Your task to perform on an android device: Go to Reddit.com Image 0: 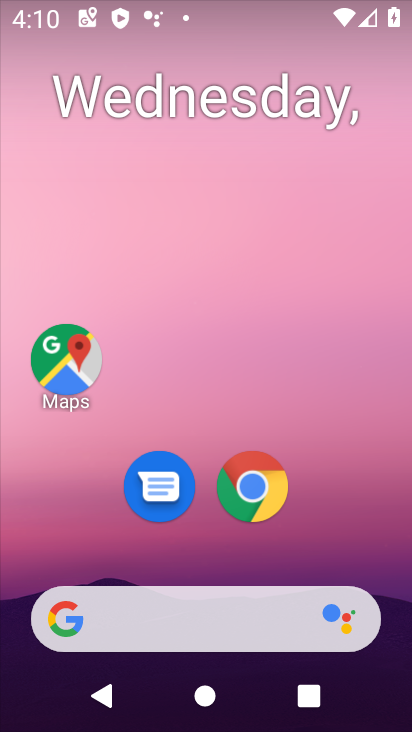
Step 0: drag from (199, 593) to (198, 156)
Your task to perform on an android device: Go to Reddit.com Image 1: 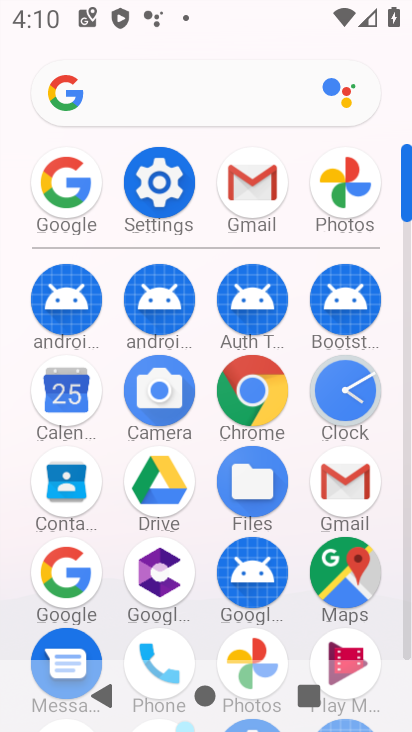
Step 1: click (70, 181)
Your task to perform on an android device: Go to Reddit.com Image 2: 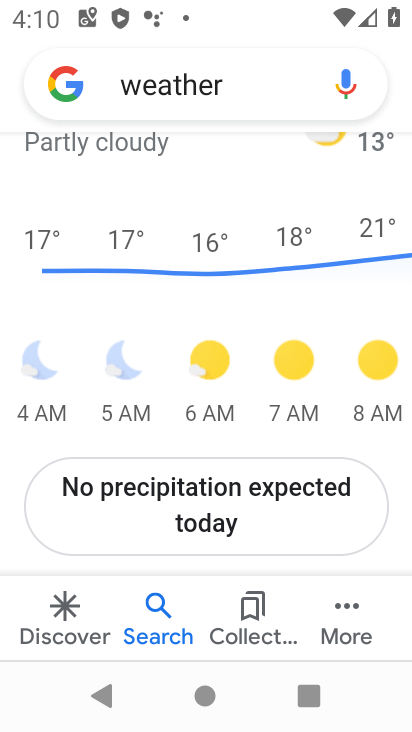
Step 2: click (267, 75)
Your task to perform on an android device: Go to Reddit.com Image 3: 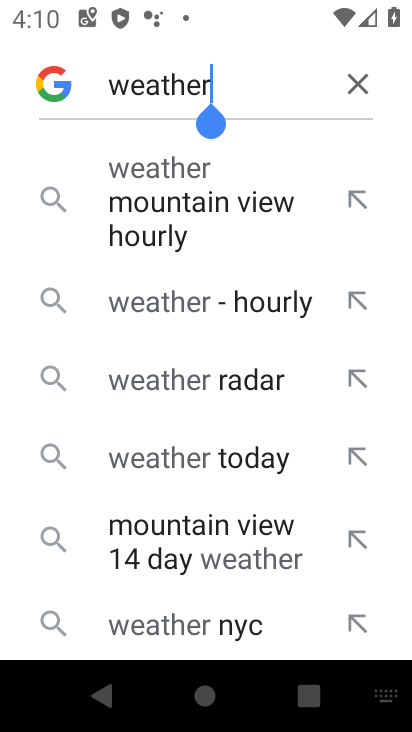
Step 3: click (362, 85)
Your task to perform on an android device: Go to Reddit.com Image 4: 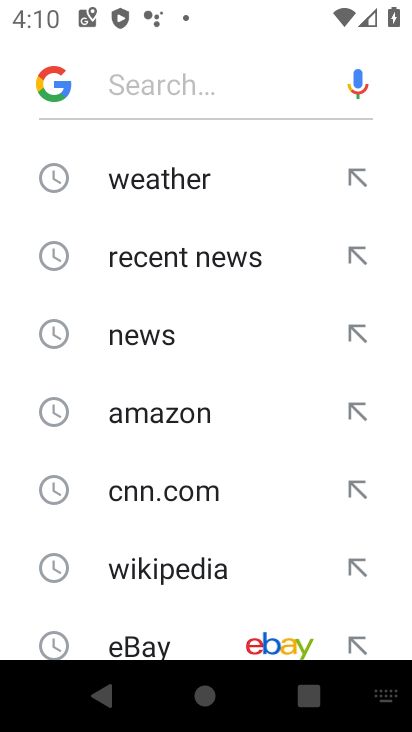
Step 4: click (116, 91)
Your task to perform on an android device: Go to Reddit.com Image 5: 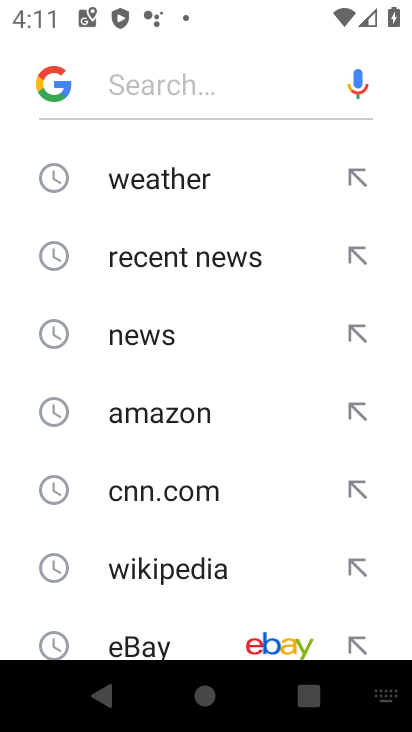
Step 5: drag from (163, 646) to (190, 288)
Your task to perform on an android device: Go to Reddit.com Image 6: 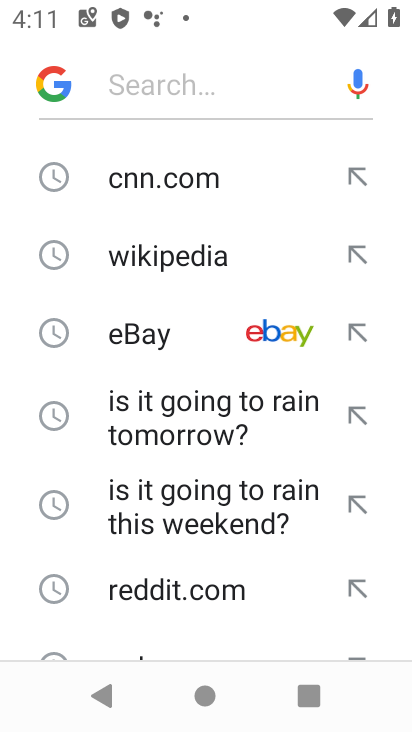
Step 6: click (131, 588)
Your task to perform on an android device: Go to Reddit.com Image 7: 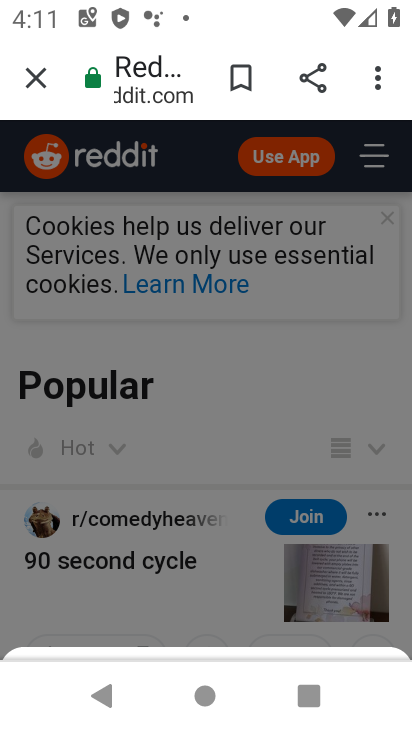
Step 7: task complete